Your task to perform on an android device: Go to Android settings Image 0: 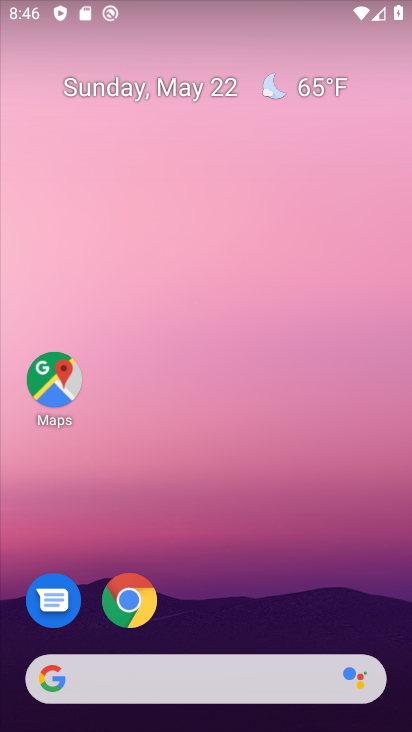
Step 0: drag from (221, 617) to (214, 237)
Your task to perform on an android device: Go to Android settings Image 1: 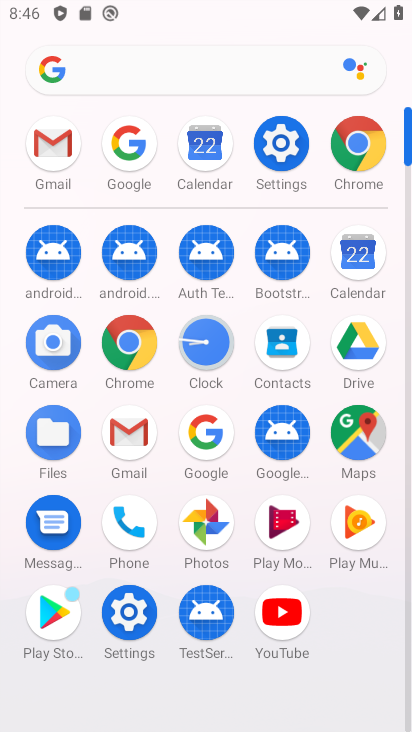
Step 1: click (133, 621)
Your task to perform on an android device: Go to Android settings Image 2: 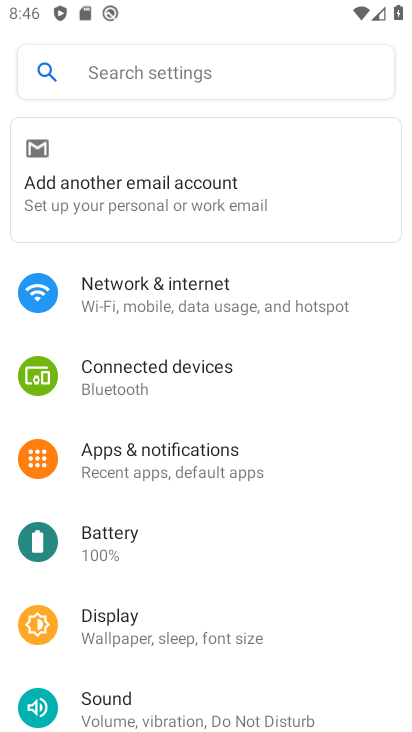
Step 2: drag from (128, 668) to (132, 300)
Your task to perform on an android device: Go to Android settings Image 3: 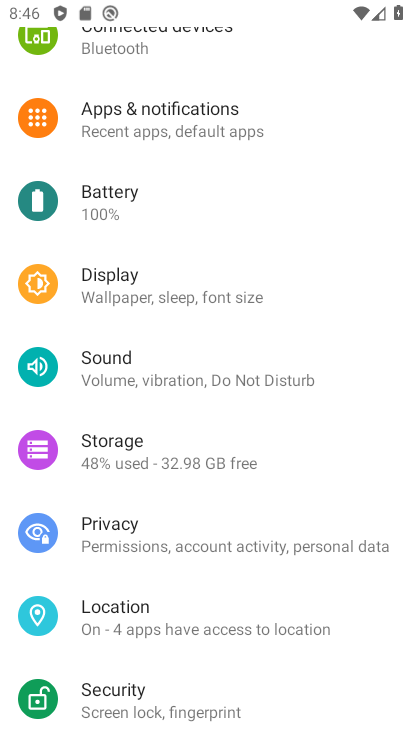
Step 3: drag from (147, 662) to (180, 313)
Your task to perform on an android device: Go to Android settings Image 4: 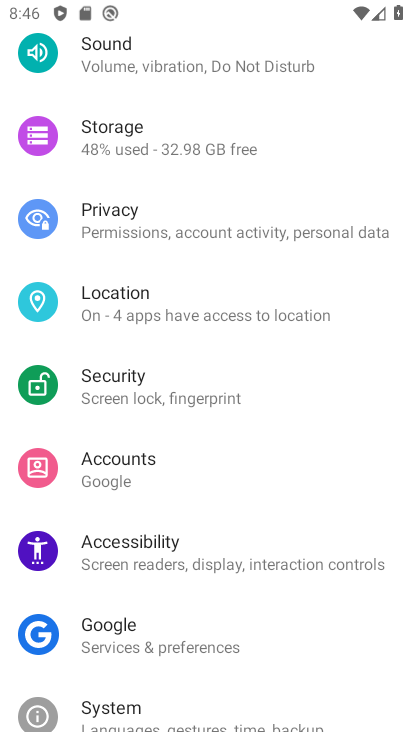
Step 4: drag from (155, 654) to (186, 288)
Your task to perform on an android device: Go to Android settings Image 5: 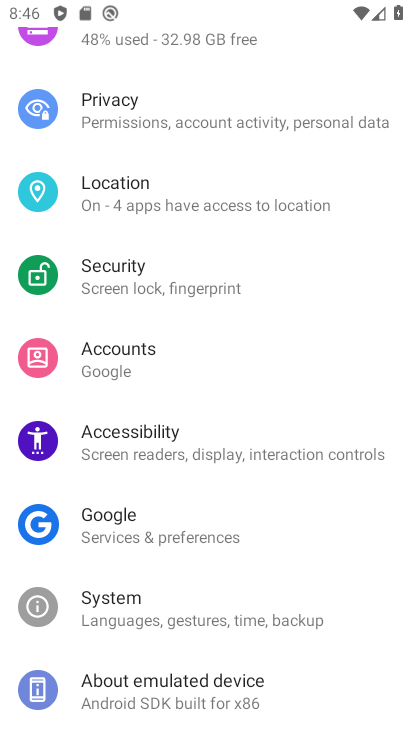
Step 5: click (148, 691)
Your task to perform on an android device: Go to Android settings Image 6: 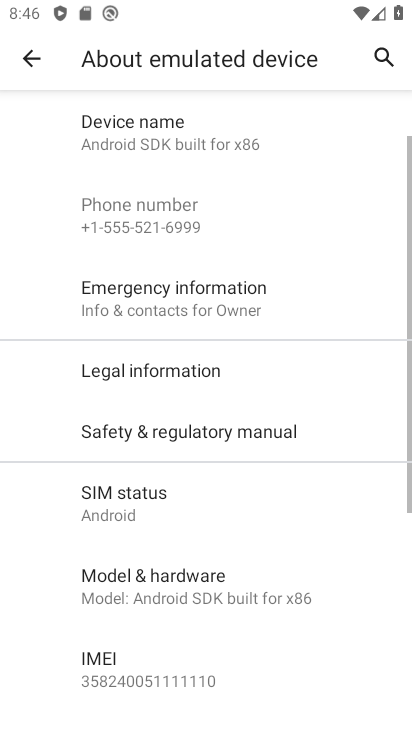
Step 6: drag from (172, 672) to (166, 324)
Your task to perform on an android device: Go to Android settings Image 7: 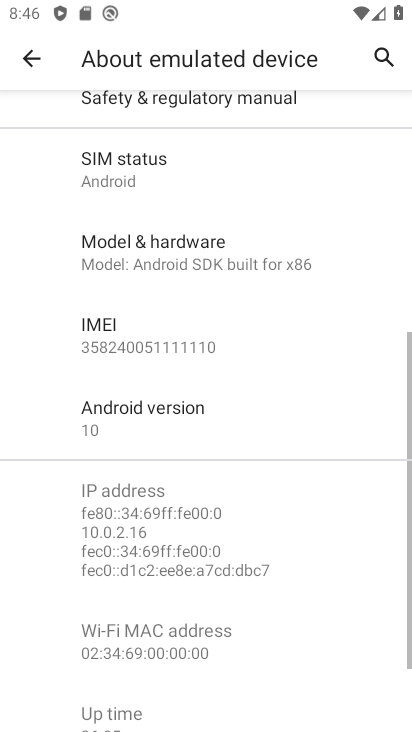
Step 7: click (168, 429)
Your task to perform on an android device: Go to Android settings Image 8: 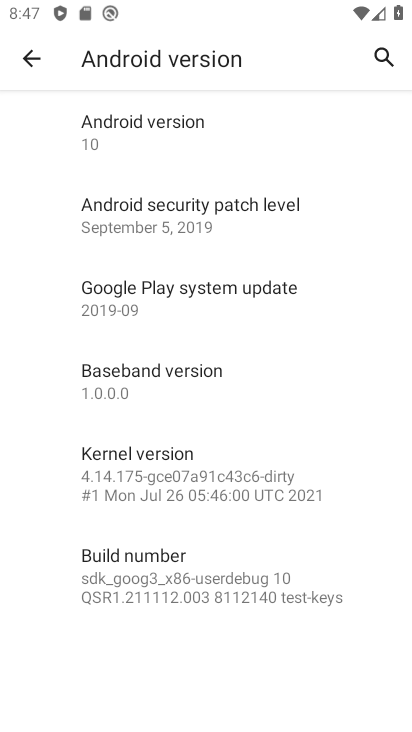
Step 8: task complete